Your task to perform on an android device: turn smart compose on in the gmail app Image 0: 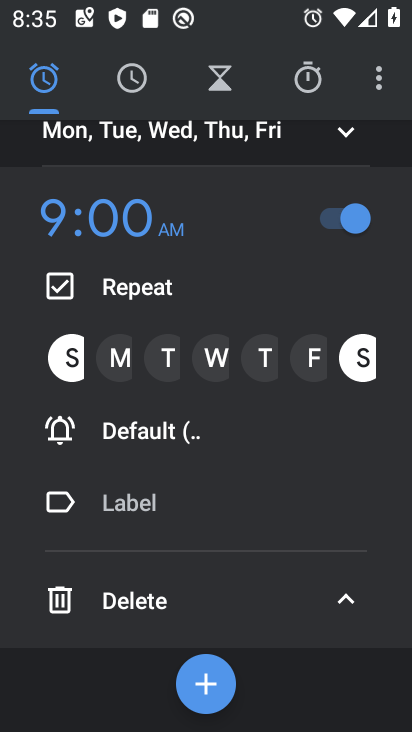
Step 0: click (382, 84)
Your task to perform on an android device: turn smart compose on in the gmail app Image 1: 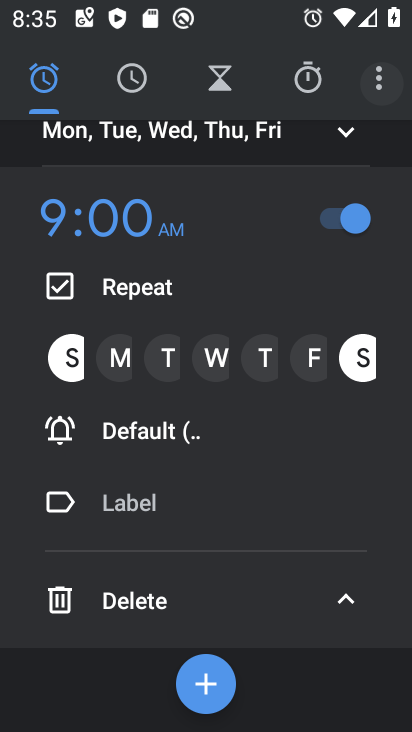
Step 1: click (380, 81)
Your task to perform on an android device: turn smart compose on in the gmail app Image 2: 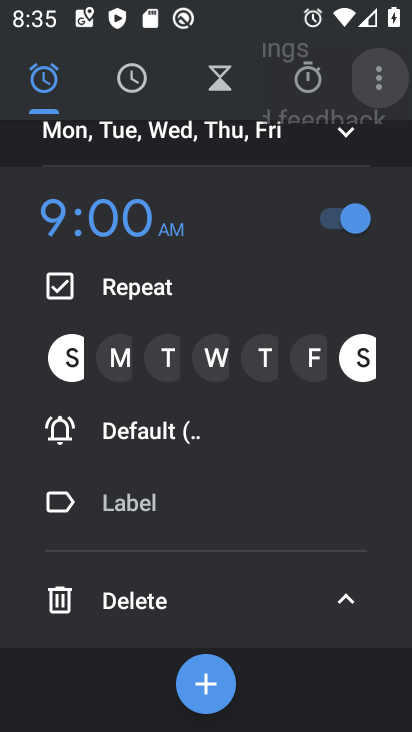
Step 2: click (379, 80)
Your task to perform on an android device: turn smart compose on in the gmail app Image 3: 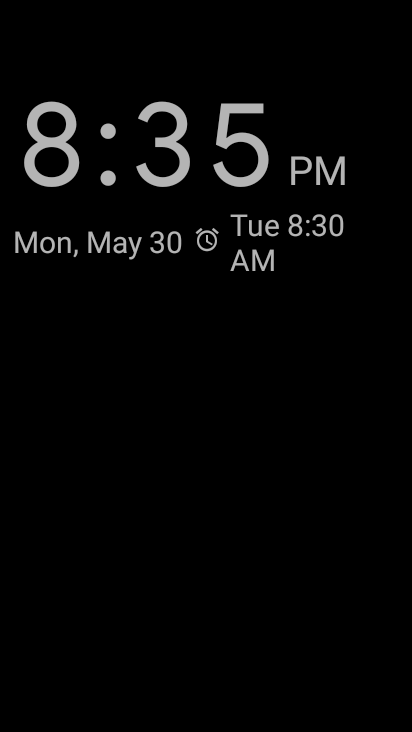
Step 3: press back button
Your task to perform on an android device: turn smart compose on in the gmail app Image 4: 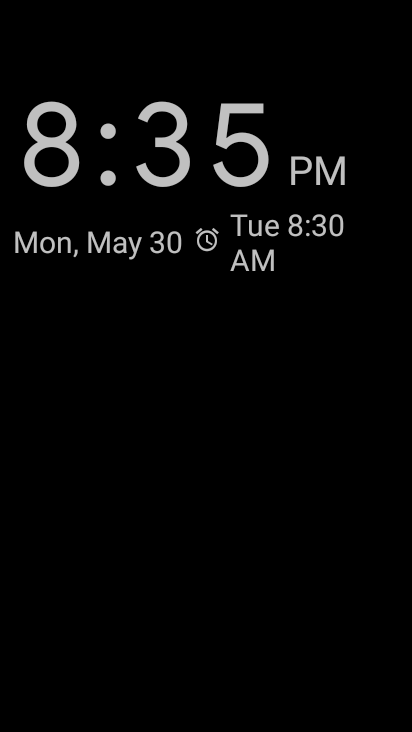
Step 4: press back button
Your task to perform on an android device: turn smart compose on in the gmail app Image 5: 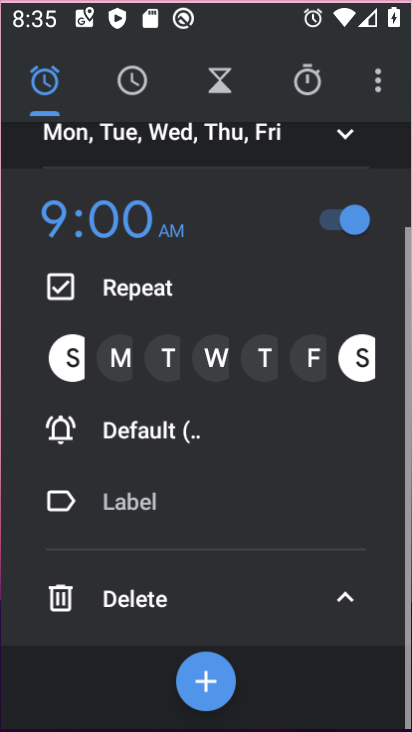
Step 5: press back button
Your task to perform on an android device: turn smart compose on in the gmail app Image 6: 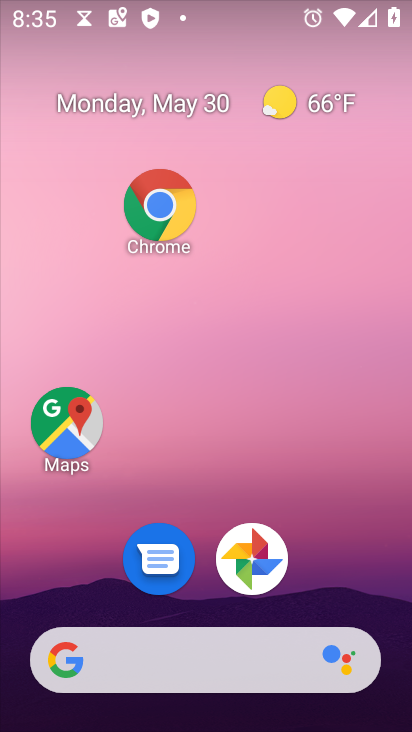
Step 6: drag from (349, 479) to (306, 83)
Your task to perform on an android device: turn smart compose on in the gmail app Image 7: 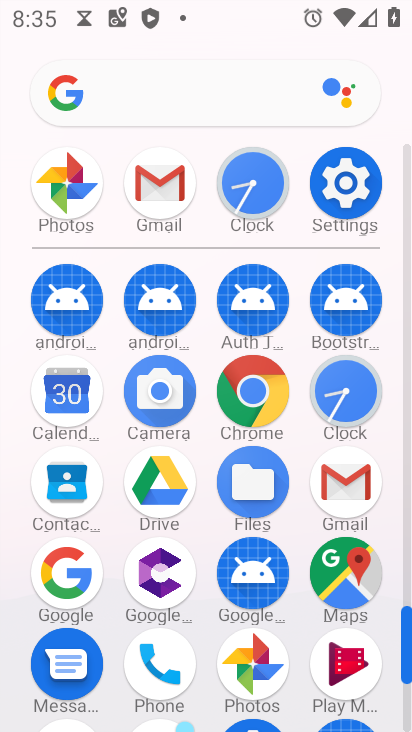
Step 7: click (346, 485)
Your task to perform on an android device: turn smart compose on in the gmail app Image 8: 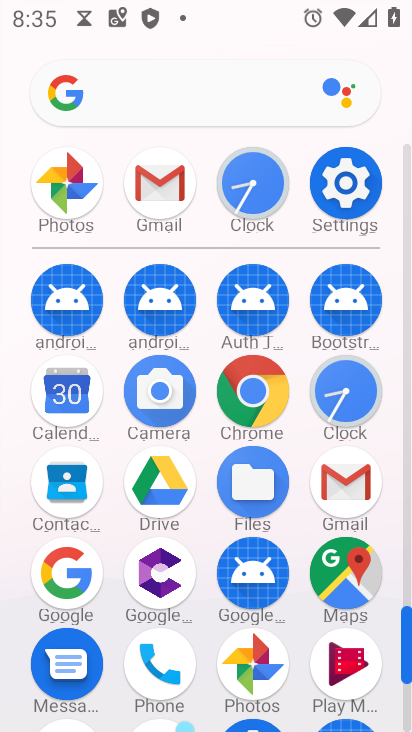
Step 8: click (346, 485)
Your task to perform on an android device: turn smart compose on in the gmail app Image 9: 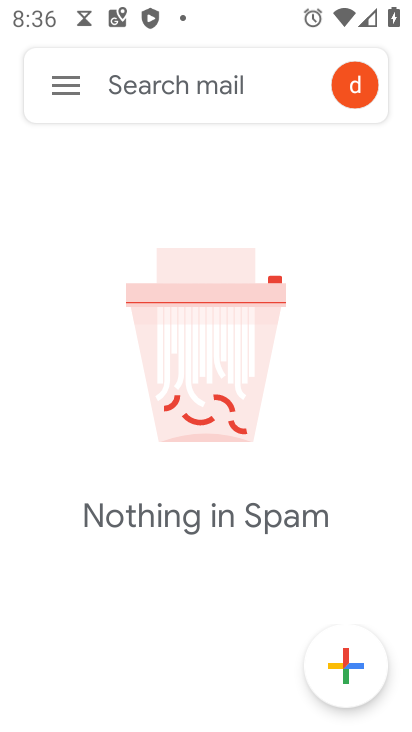
Step 9: click (73, 80)
Your task to perform on an android device: turn smart compose on in the gmail app Image 10: 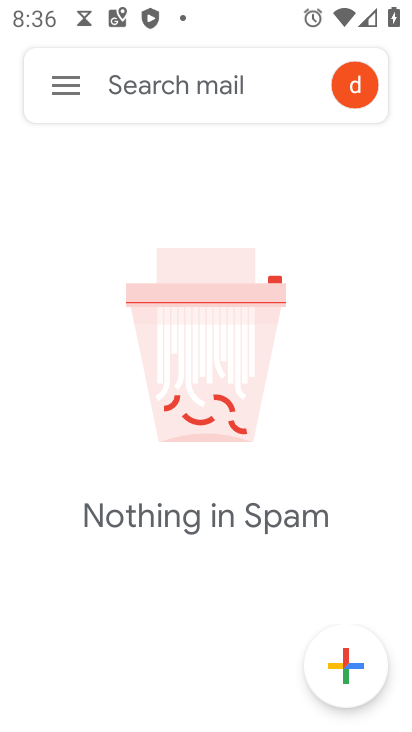
Step 10: click (73, 80)
Your task to perform on an android device: turn smart compose on in the gmail app Image 11: 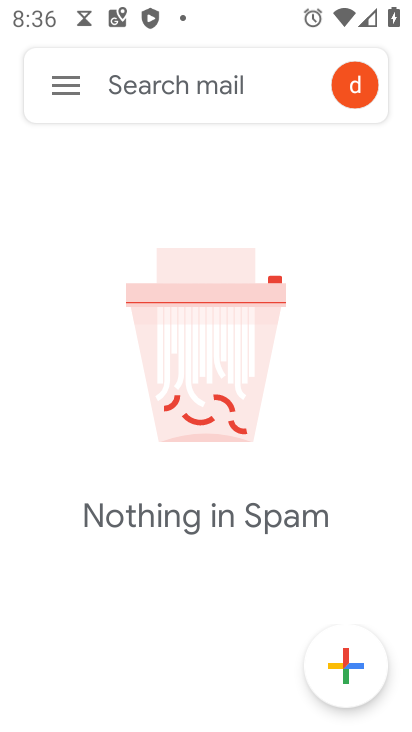
Step 11: click (75, 96)
Your task to perform on an android device: turn smart compose on in the gmail app Image 12: 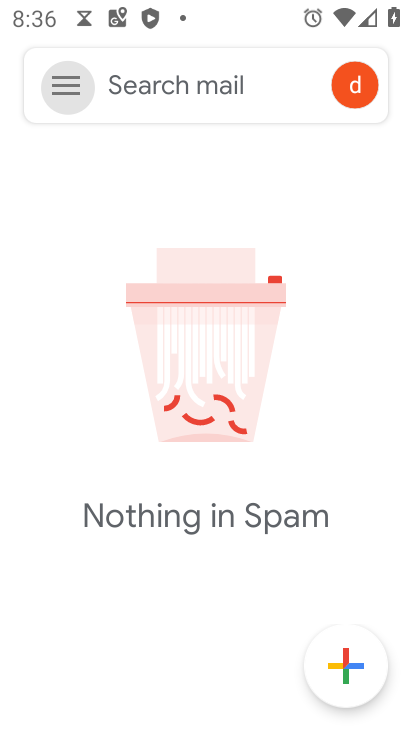
Step 12: click (75, 96)
Your task to perform on an android device: turn smart compose on in the gmail app Image 13: 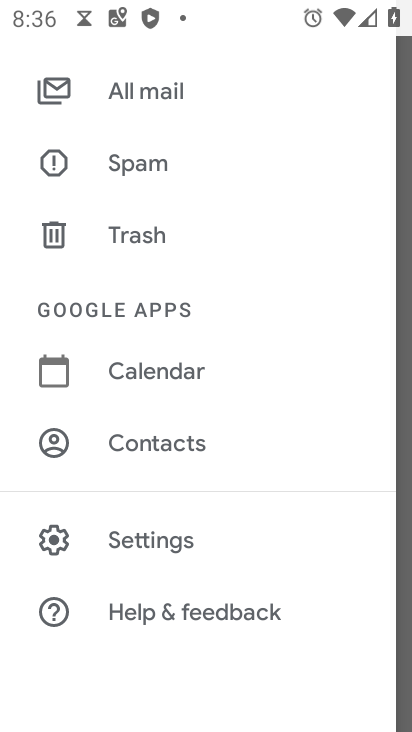
Step 13: click (155, 528)
Your task to perform on an android device: turn smart compose on in the gmail app Image 14: 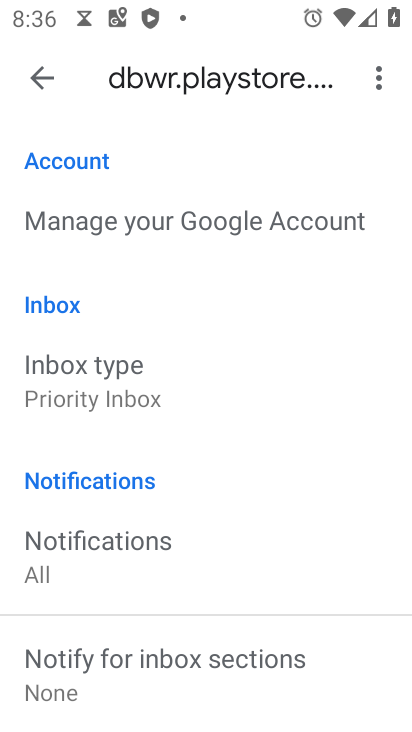
Step 14: drag from (102, 606) to (54, 306)
Your task to perform on an android device: turn smart compose on in the gmail app Image 15: 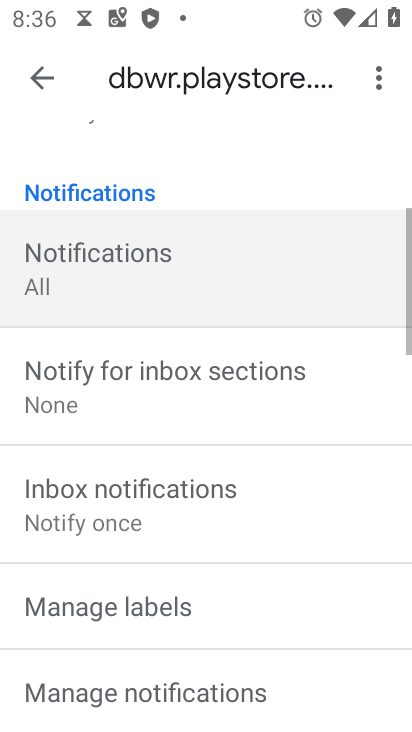
Step 15: drag from (170, 440) to (164, 234)
Your task to perform on an android device: turn smart compose on in the gmail app Image 16: 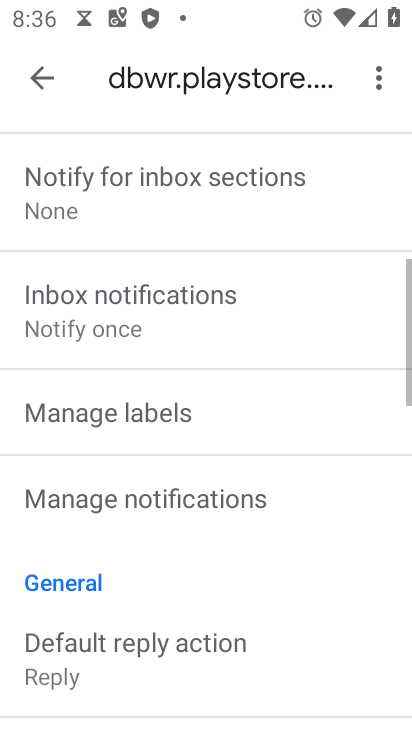
Step 16: drag from (158, 466) to (235, 138)
Your task to perform on an android device: turn smart compose on in the gmail app Image 17: 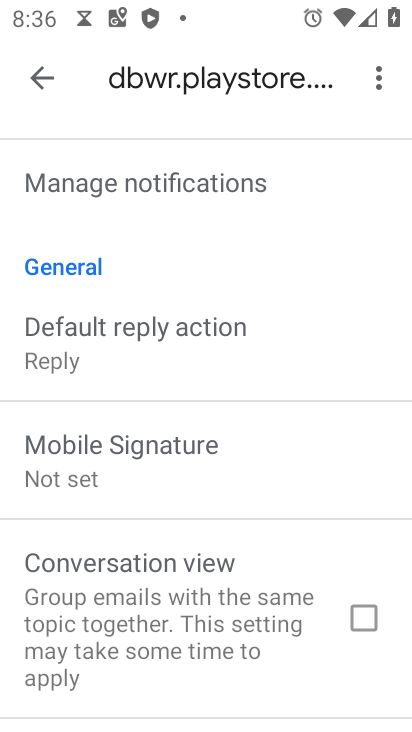
Step 17: drag from (210, 467) to (195, 260)
Your task to perform on an android device: turn smart compose on in the gmail app Image 18: 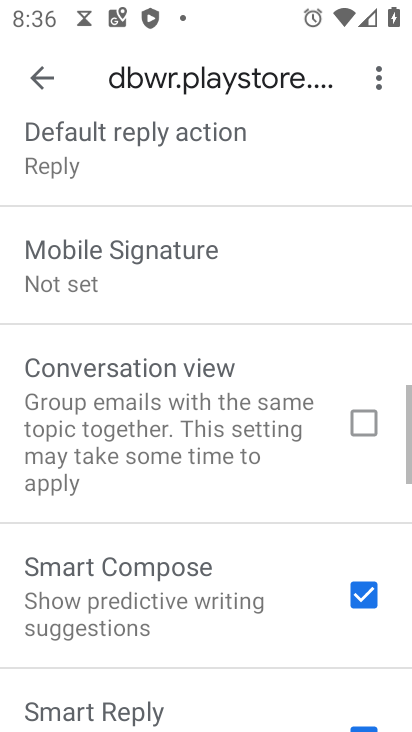
Step 18: drag from (233, 508) to (197, 195)
Your task to perform on an android device: turn smart compose on in the gmail app Image 19: 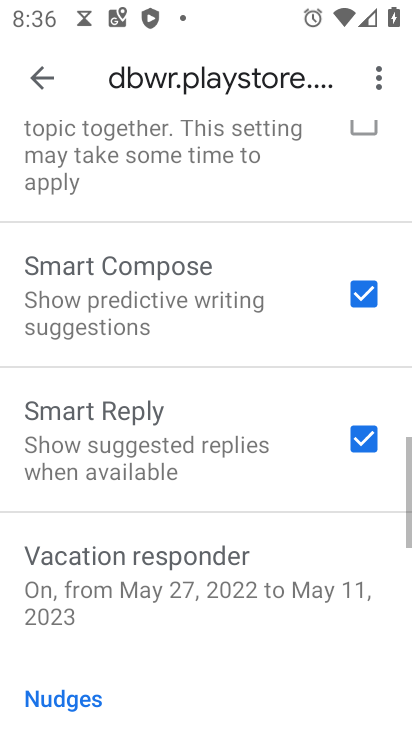
Step 19: drag from (190, 441) to (182, 106)
Your task to perform on an android device: turn smart compose on in the gmail app Image 20: 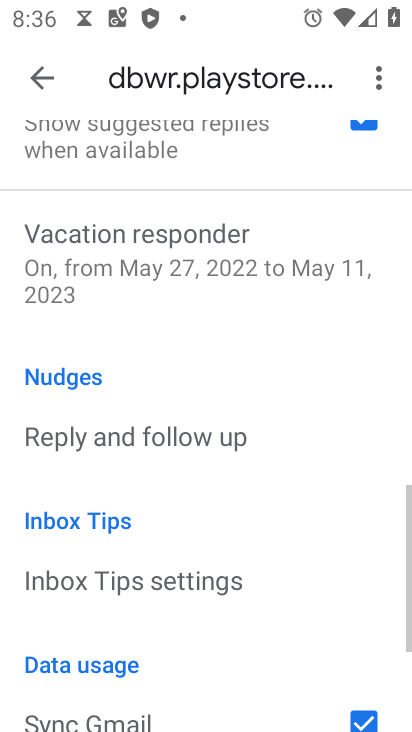
Step 20: drag from (217, 327) to (254, 647)
Your task to perform on an android device: turn smart compose on in the gmail app Image 21: 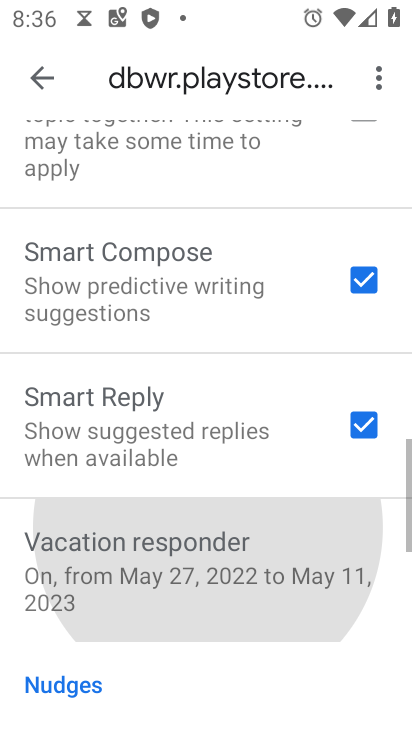
Step 21: drag from (225, 280) to (250, 581)
Your task to perform on an android device: turn smart compose on in the gmail app Image 22: 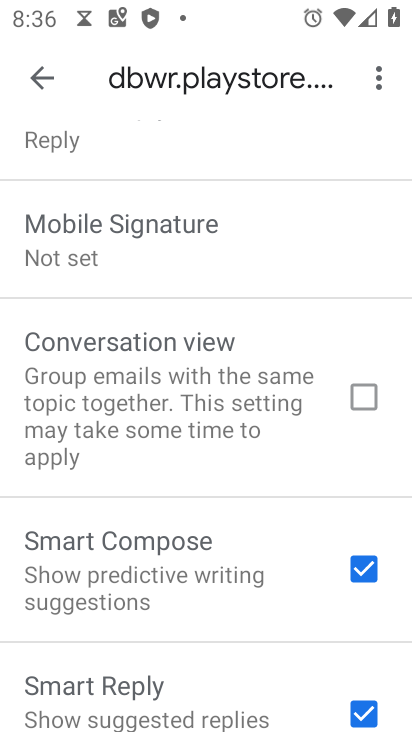
Step 22: click (362, 568)
Your task to perform on an android device: turn smart compose on in the gmail app Image 23: 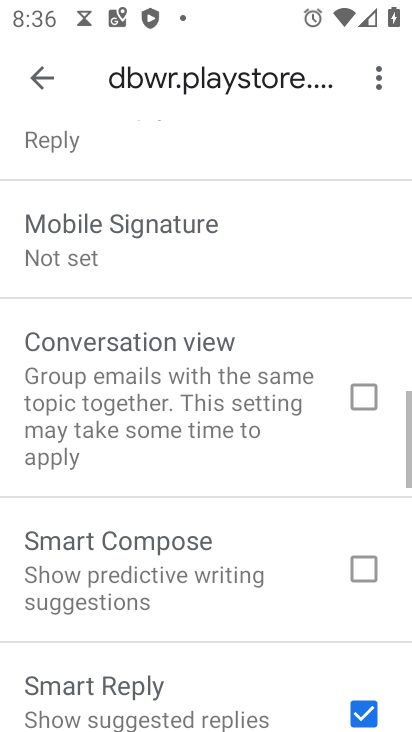
Step 23: click (361, 569)
Your task to perform on an android device: turn smart compose on in the gmail app Image 24: 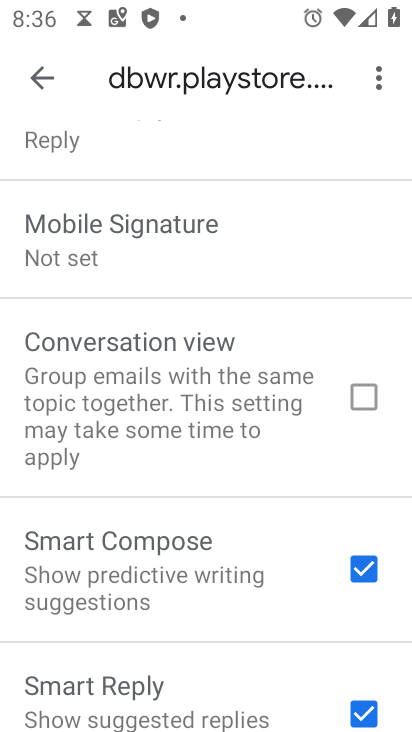
Step 24: task complete